Your task to perform on an android device: check android version Image 0: 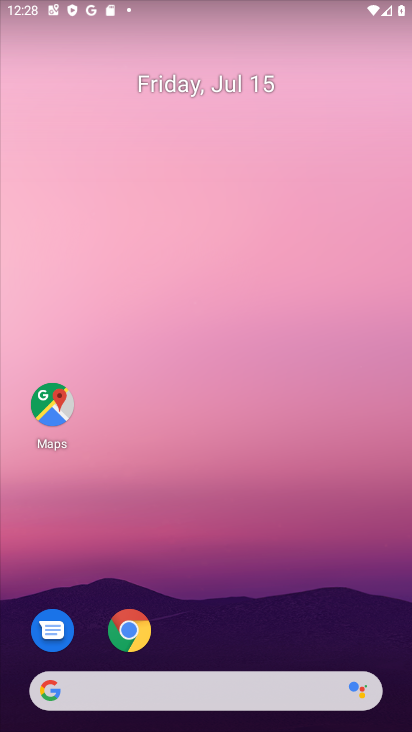
Step 0: drag from (275, 487) to (212, 124)
Your task to perform on an android device: check android version Image 1: 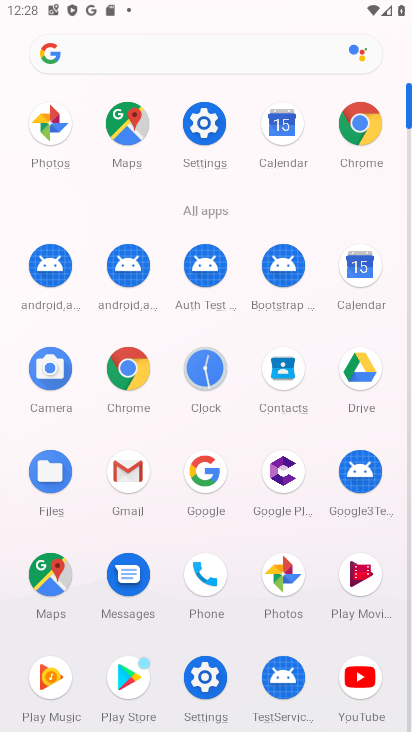
Step 1: drag from (181, 639) to (131, 138)
Your task to perform on an android device: check android version Image 2: 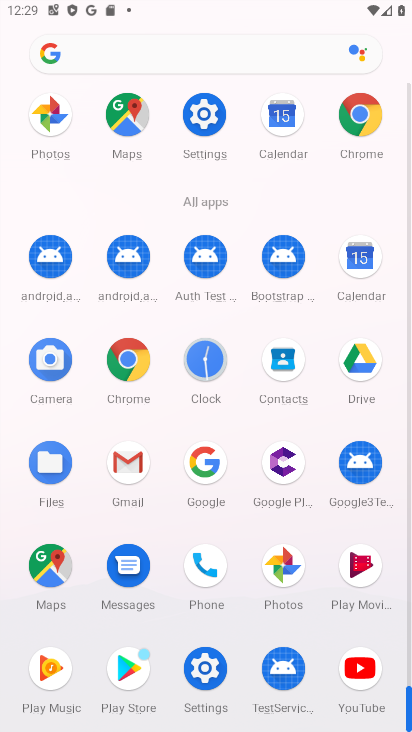
Step 2: click (206, 663)
Your task to perform on an android device: check android version Image 3: 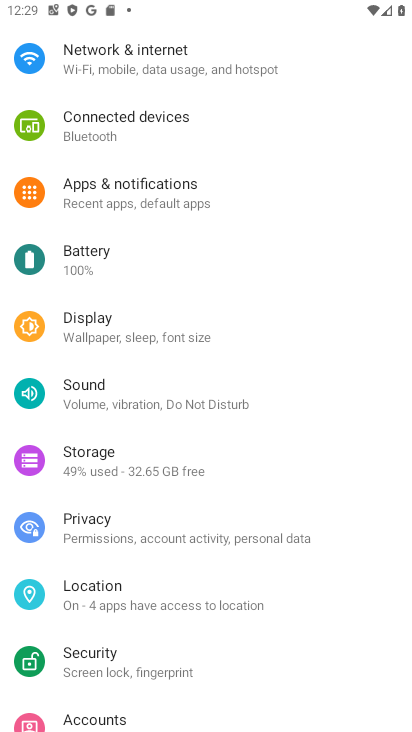
Step 3: drag from (206, 663) to (203, 24)
Your task to perform on an android device: check android version Image 4: 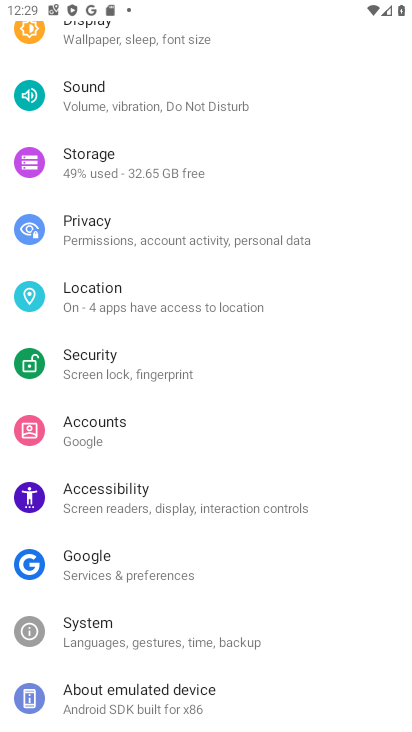
Step 4: click (140, 694)
Your task to perform on an android device: check android version Image 5: 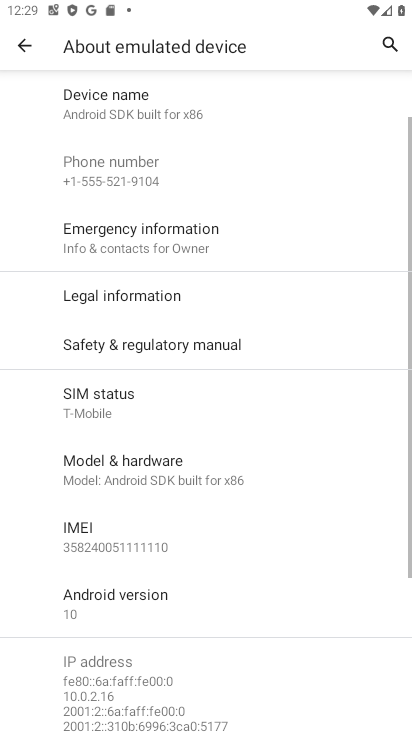
Step 5: click (125, 596)
Your task to perform on an android device: check android version Image 6: 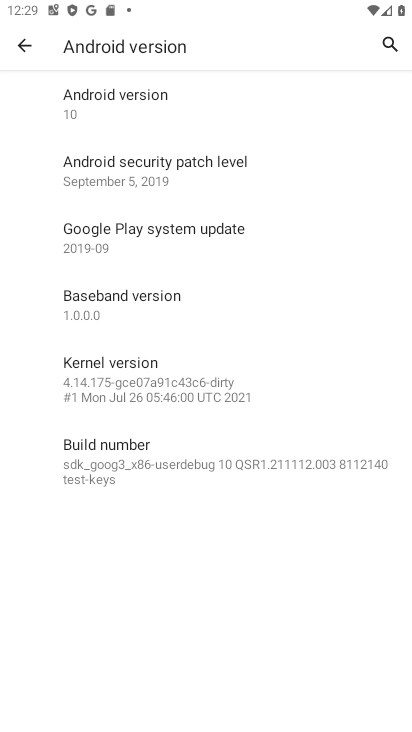
Step 6: task complete